Your task to perform on an android device: Open calendar and show me the second week of next month Image 0: 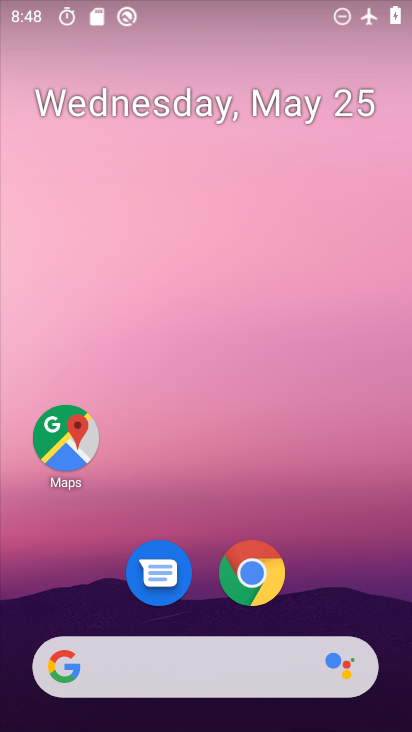
Step 0: drag from (373, 632) to (333, 307)
Your task to perform on an android device: Open calendar and show me the second week of next month Image 1: 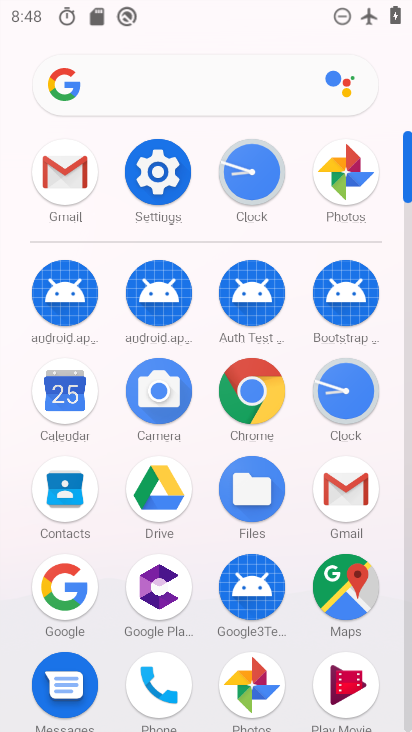
Step 1: click (64, 390)
Your task to perform on an android device: Open calendar and show me the second week of next month Image 2: 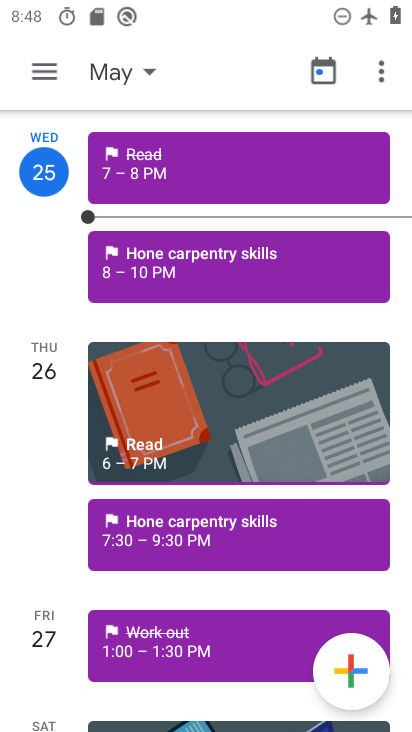
Step 2: click (141, 67)
Your task to perform on an android device: Open calendar and show me the second week of next month Image 3: 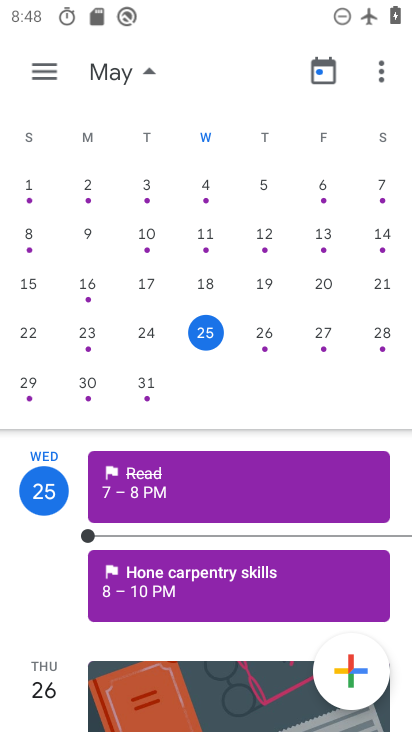
Step 3: drag from (399, 258) to (111, 271)
Your task to perform on an android device: Open calendar and show me the second week of next month Image 4: 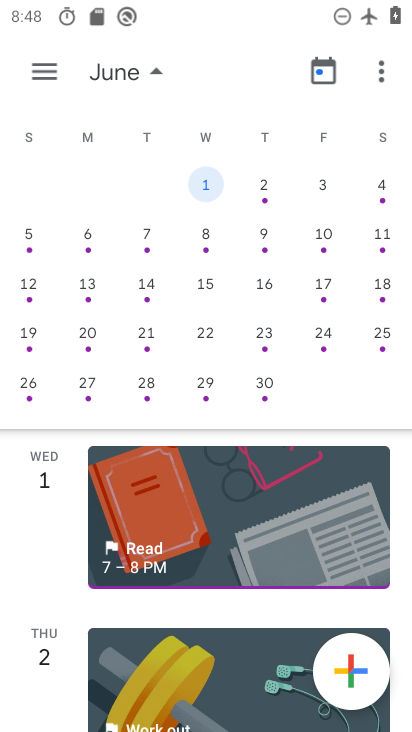
Step 4: click (199, 232)
Your task to perform on an android device: Open calendar and show me the second week of next month Image 5: 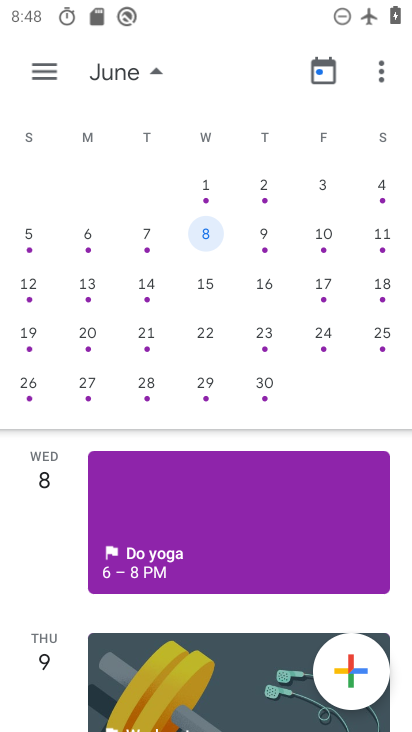
Step 5: click (39, 78)
Your task to perform on an android device: Open calendar and show me the second week of next month Image 6: 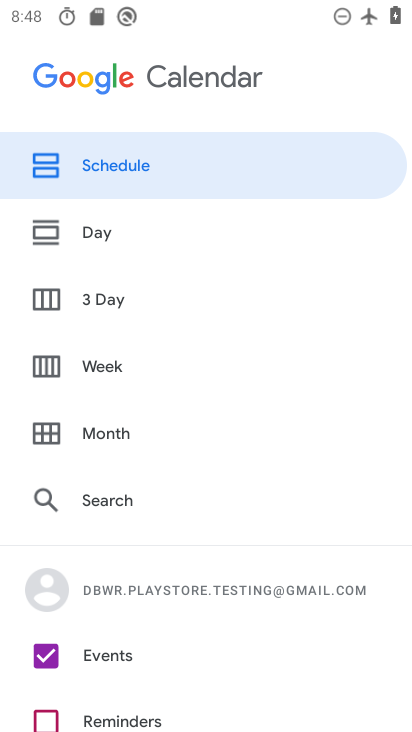
Step 6: click (82, 367)
Your task to perform on an android device: Open calendar and show me the second week of next month Image 7: 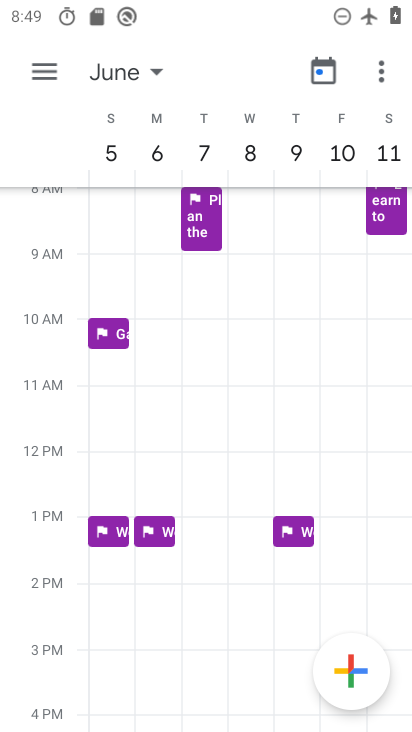
Step 7: click (45, 62)
Your task to perform on an android device: Open calendar and show me the second week of next month Image 8: 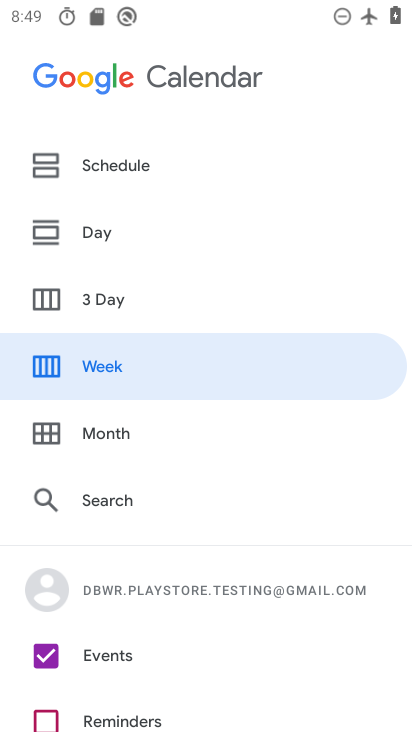
Step 8: click (85, 170)
Your task to perform on an android device: Open calendar and show me the second week of next month Image 9: 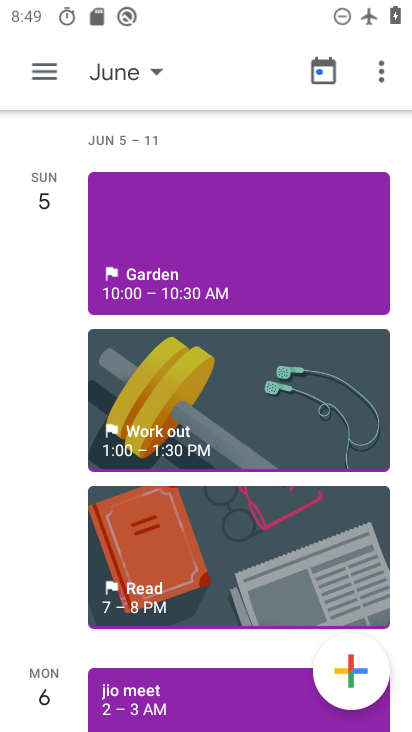
Step 9: click (45, 68)
Your task to perform on an android device: Open calendar and show me the second week of next month Image 10: 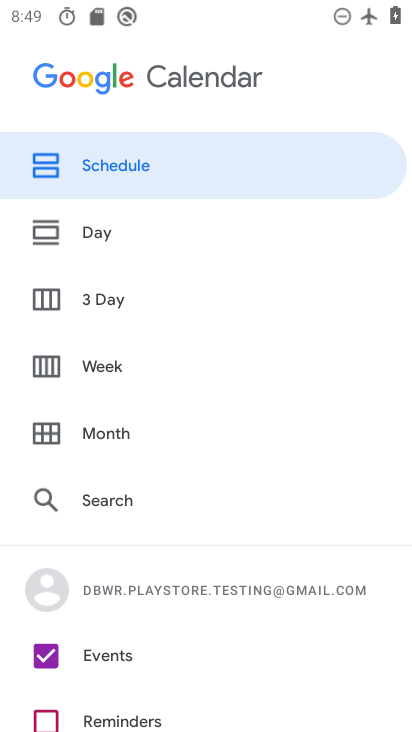
Step 10: click (86, 371)
Your task to perform on an android device: Open calendar and show me the second week of next month Image 11: 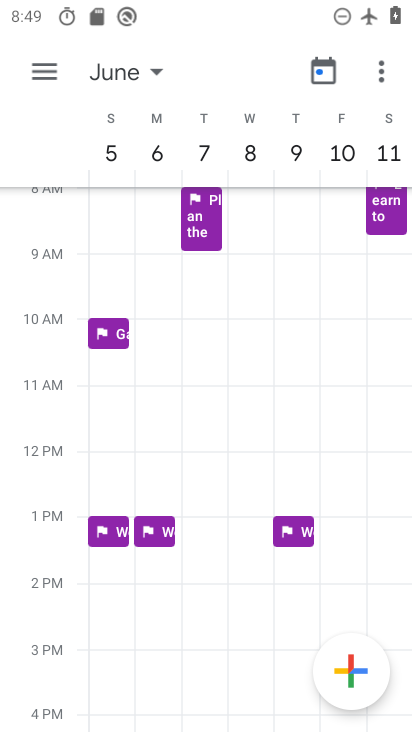
Step 11: task complete